Your task to perform on an android device: Toggle the flashlight Image 0: 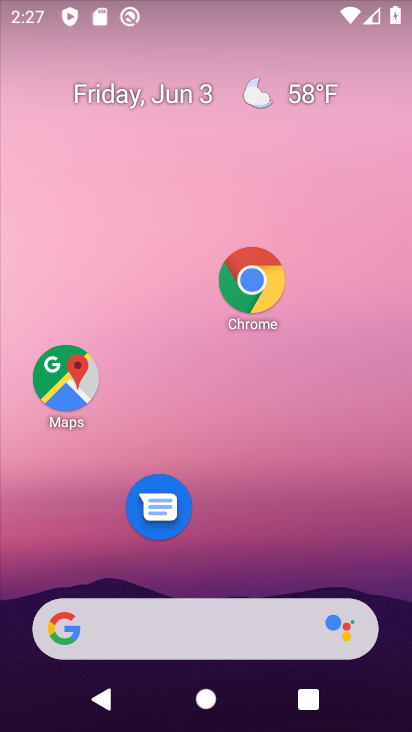
Step 0: drag from (234, 567) to (258, 28)
Your task to perform on an android device: Toggle the flashlight Image 1: 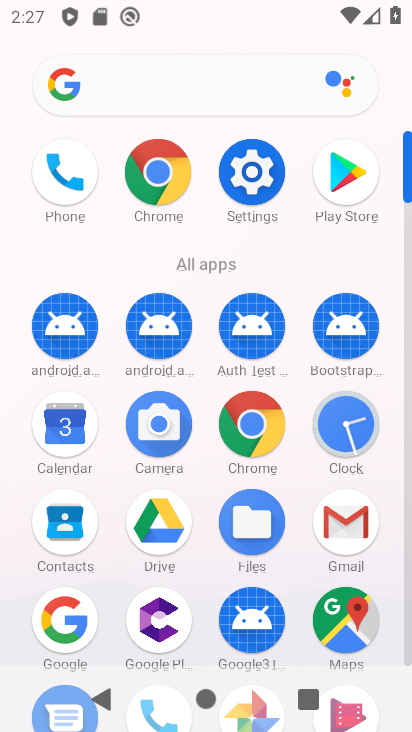
Step 1: click (255, 173)
Your task to perform on an android device: Toggle the flashlight Image 2: 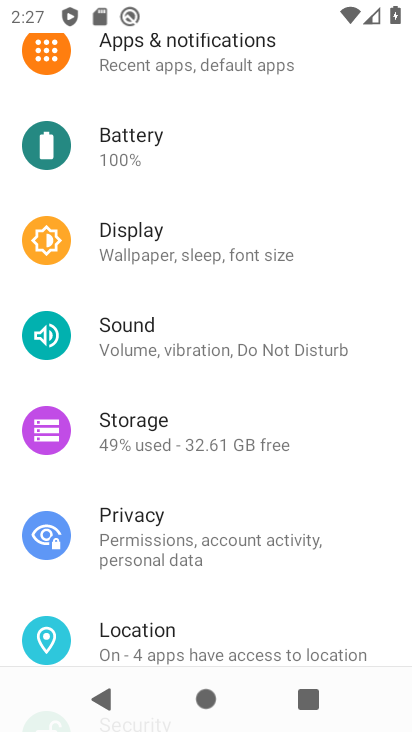
Step 2: drag from (210, 115) to (246, 647)
Your task to perform on an android device: Toggle the flashlight Image 3: 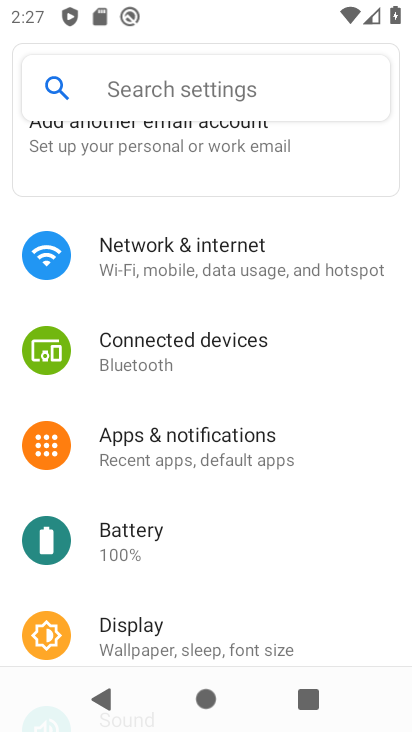
Step 3: click (170, 96)
Your task to perform on an android device: Toggle the flashlight Image 4: 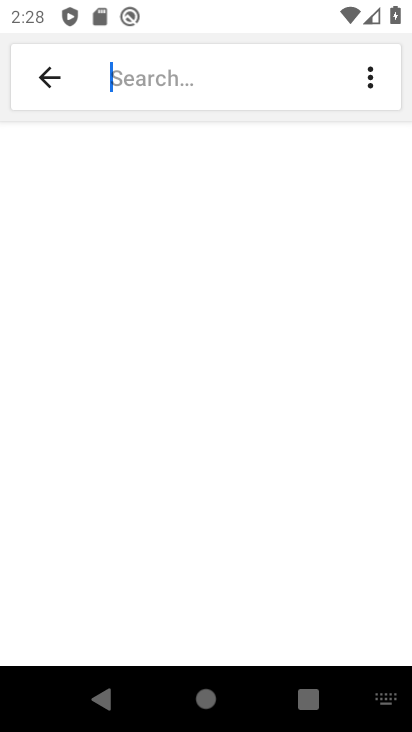
Step 4: type "flash"
Your task to perform on an android device: Toggle the flashlight Image 5: 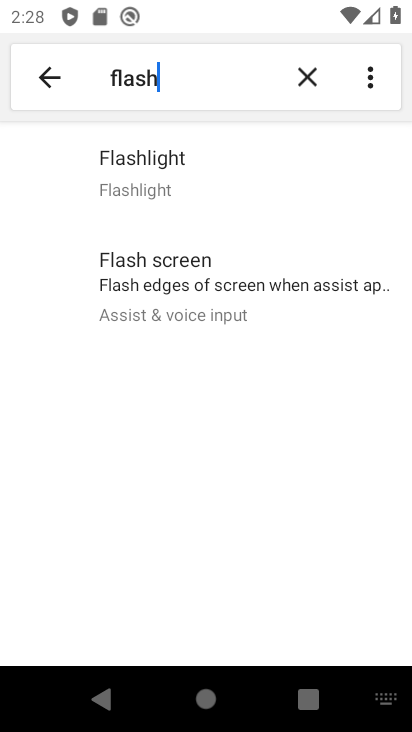
Step 5: task complete